Your task to perform on an android device: Go to Amazon Image 0: 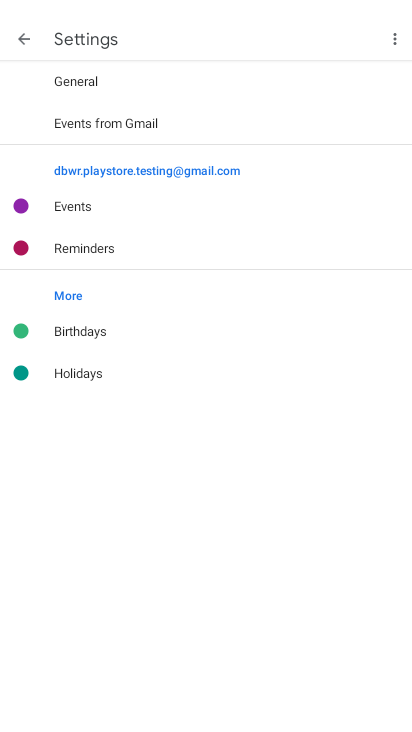
Step 0: drag from (301, 608) to (258, 187)
Your task to perform on an android device: Go to Amazon Image 1: 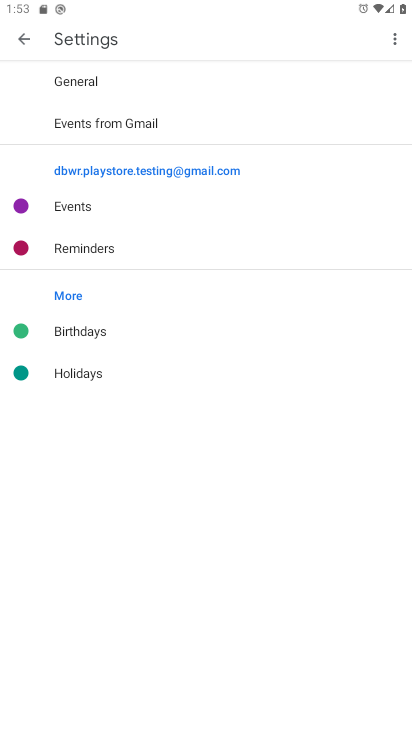
Step 1: press home button
Your task to perform on an android device: Go to Amazon Image 2: 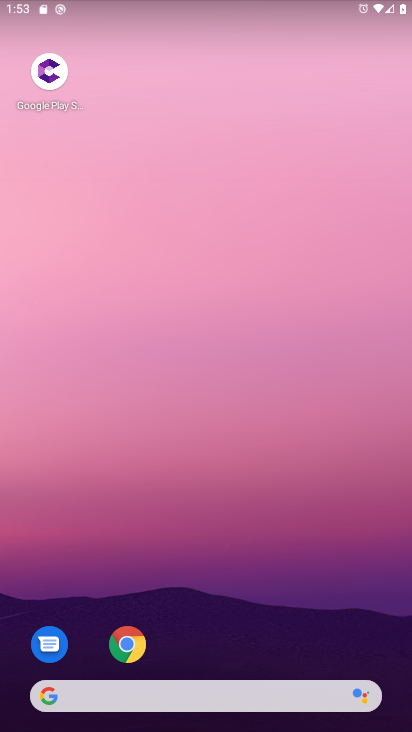
Step 2: click (119, 650)
Your task to perform on an android device: Go to Amazon Image 3: 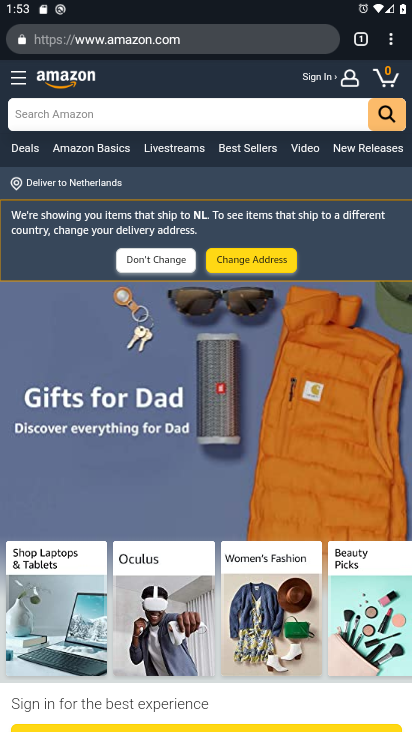
Step 3: click (121, 649)
Your task to perform on an android device: Go to Amazon Image 4: 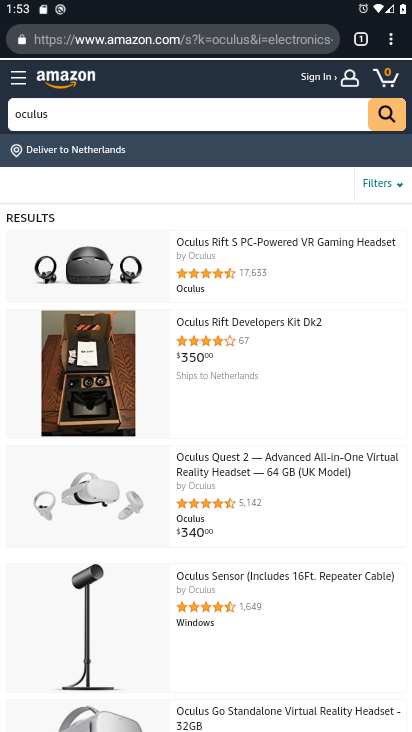
Step 4: task complete